Your task to perform on an android device: toggle notification dots Image 0: 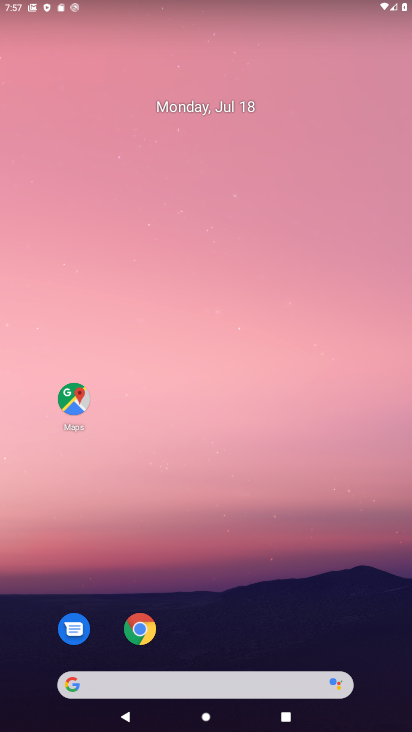
Step 0: drag from (266, 601) to (338, 221)
Your task to perform on an android device: toggle notification dots Image 1: 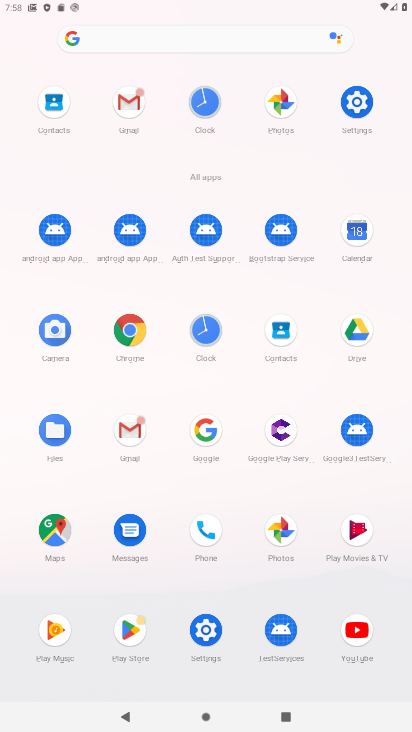
Step 1: click (202, 633)
Your task to perform on an android device: toggle notification dots Image 2: 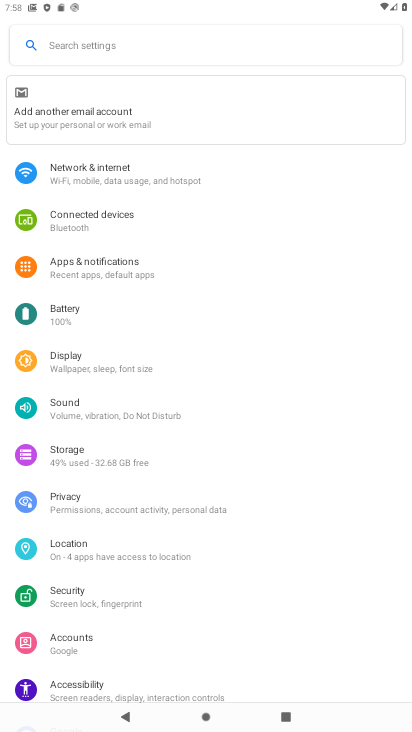
Step 2: drag from (185, 586) to (226, 284)
Your task to perform on an android device: toggle notification dots Image 3: 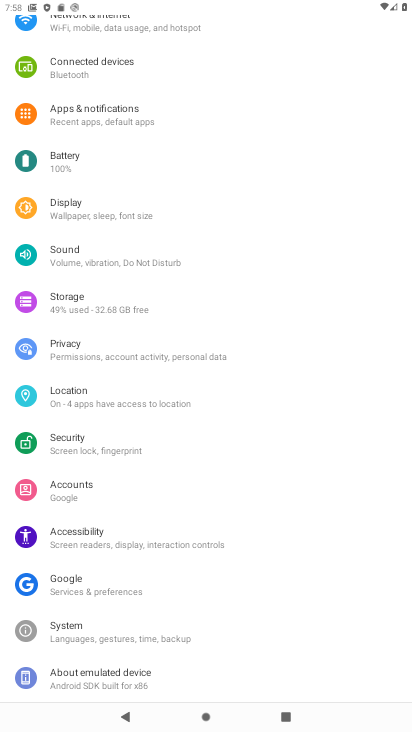
Step 3: click (122, 113)
Your task to perform on an android device: toggle notification dots Image 4: 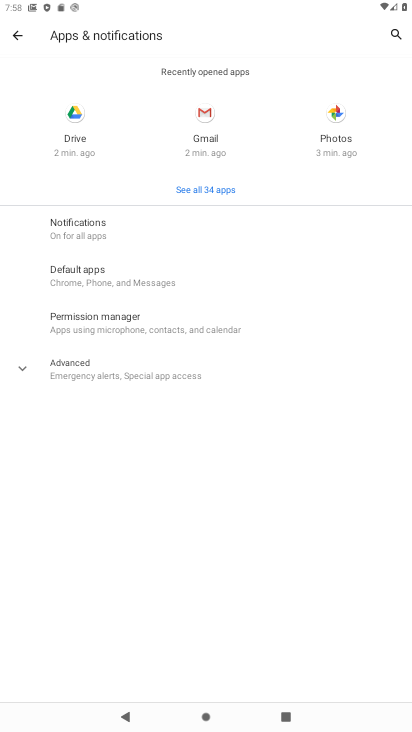
Step 4: click (199, 216)
Your task to perform on an android device: toggle notification dots Image 5: 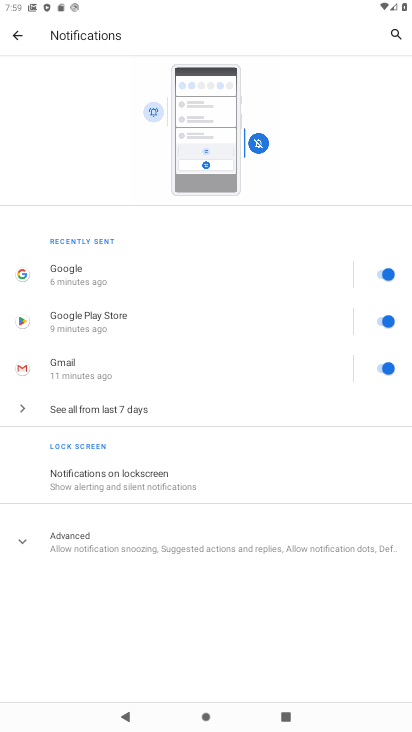
Step 5: click (202, 550)
Your task to perform on an android device: toggle notification dots Image 6: 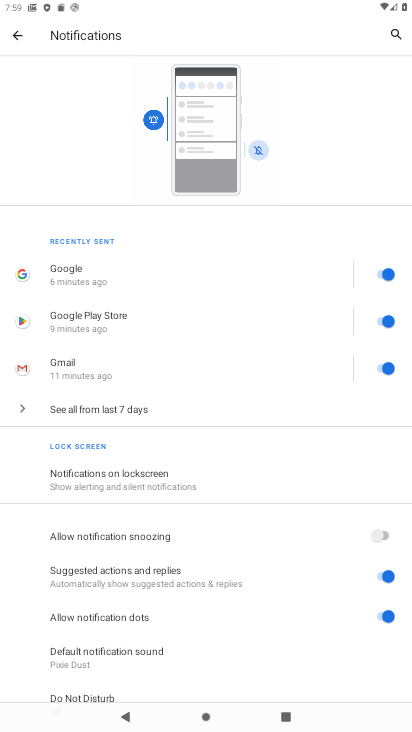
Step 6: click (379, 614)
Your task to perform on an android device: toggle notification dots Image 7: 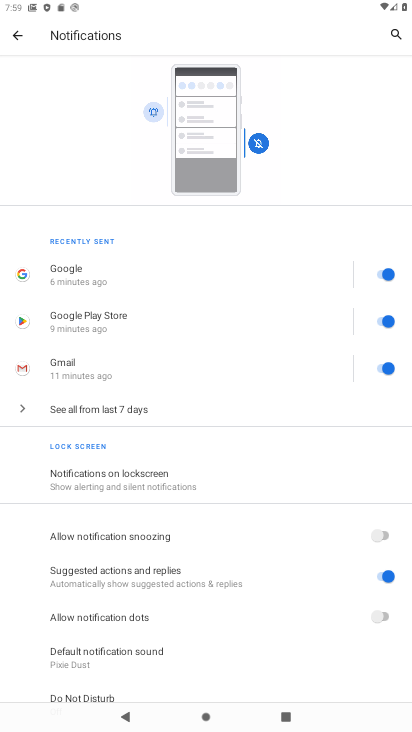
Step 7: task complete